Your task to perform on an android device: manage bookmarks in the chrome app Image 0: 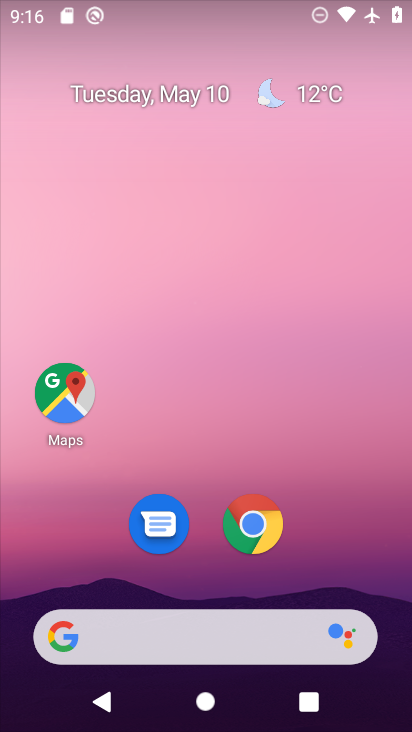
Step 0: click (253, 516)
Your task to perform on an android device: manage bookmarks in the chrome app Image 1: 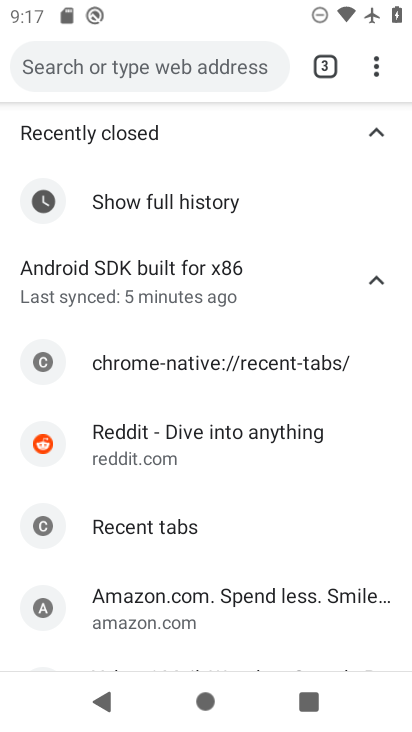
Step 1: click (376, 72)
Your task to perform on an android device: manage bookmarks in the chrome app Image 2: 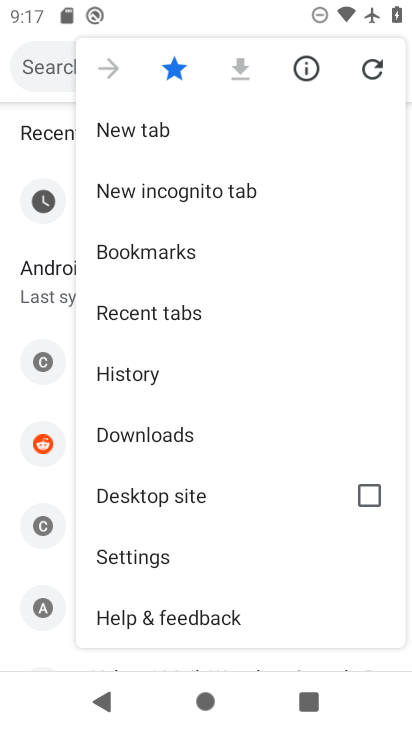
Step 2: click (186, 239)
Your task to perform on an android device: manage bookmarks in the chrome app Image 3: 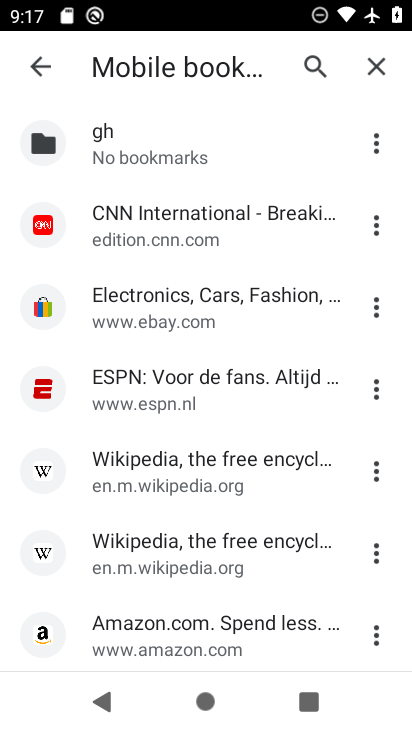
Step 3: click (373, 300)
Your task to perform on an android device: manage bookmarks in the chrome app Image 4: 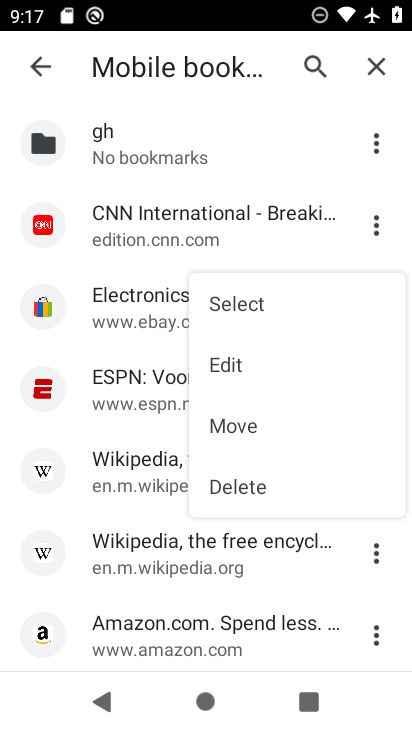
Step 4: click (251, 367)
Your task to perform on an android device: manage bookmarks in the chrome app Image 5: 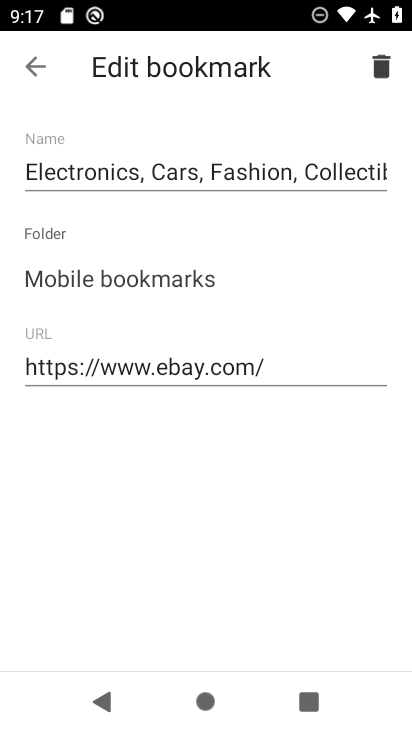
Step 5: click (43, 65)
Your task to perform on an android device: manage bookmarks in the chrome app Image 6: 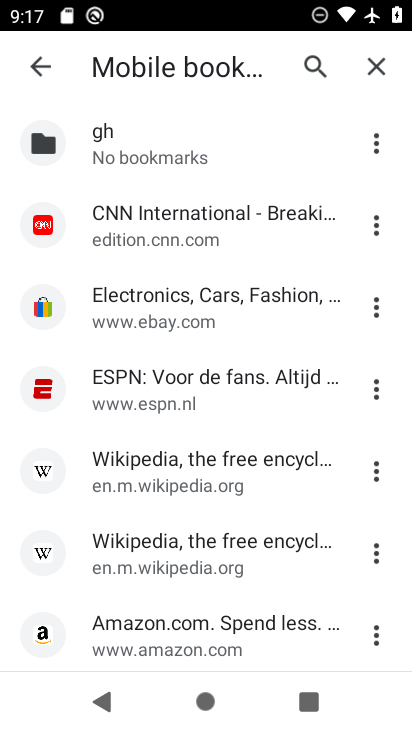
Step 6: task complete